Your task to perform on an android device: check data usage Image 0: 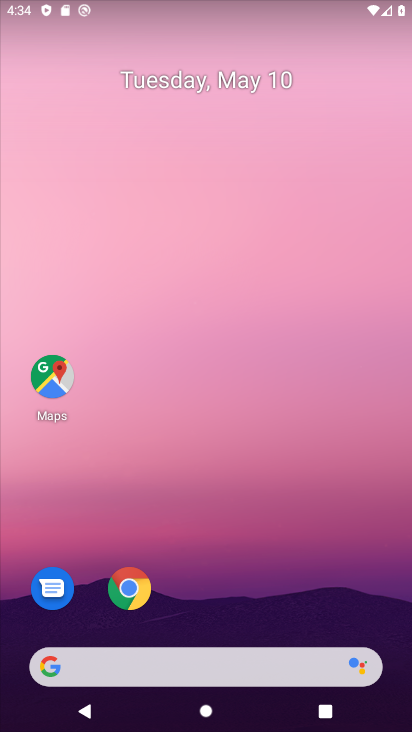
Step 0: drag from (356, 550) to (311, 31)
Your task to perform on an android device: check data usage Image 1: 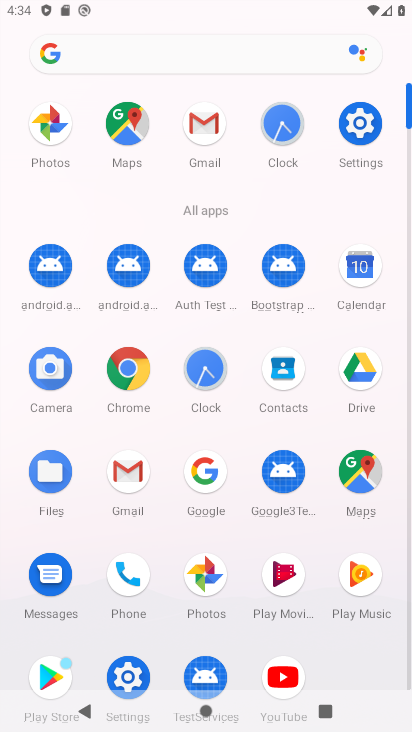
Step 1: click (358, 126)
Your task to perform on an android device: check data usage Image 2: 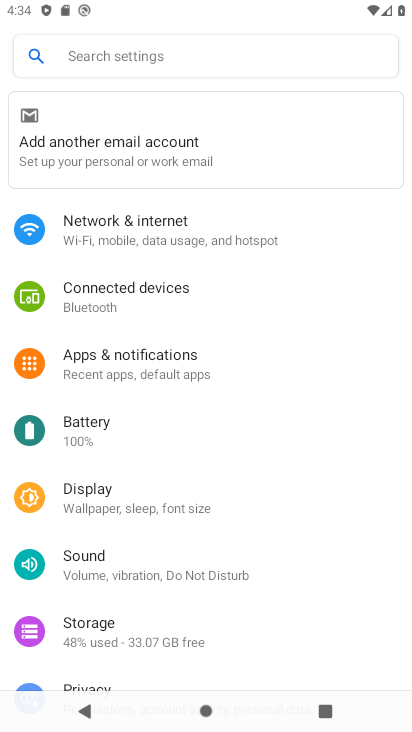
Step 2: click (219, 228)
Your task to perform on an android device: check data usage Image 3: 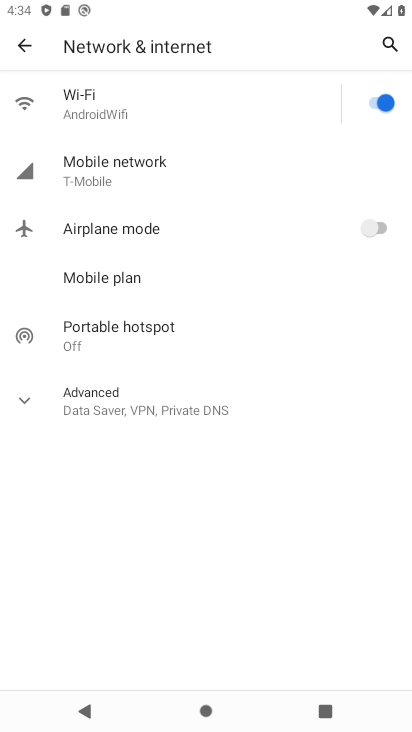
Step 3: click (169, 157)
Your task to perform on an android device: check data usage Image 4: 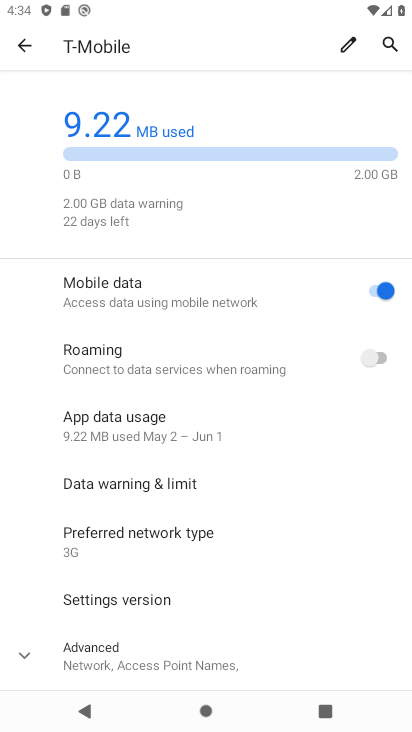
Step 4: task complete